Your task to perform on an android device: toggle data saver in the chrome app Image 0: 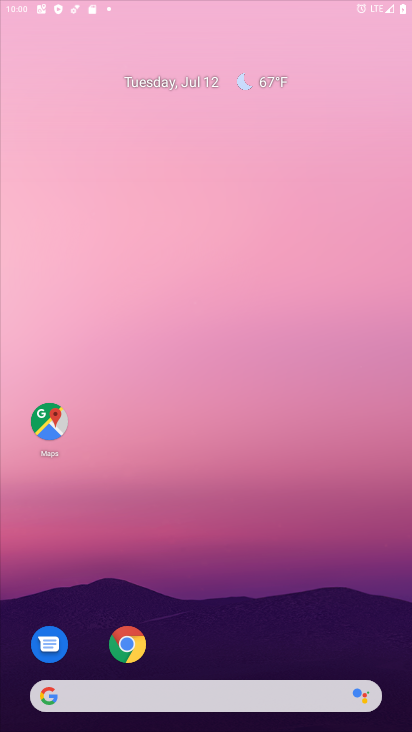
Step 0: drag from (195, 572) to (203, 220)
Your task to perform on an android device: toggle data saver in the chrome app Image 1: 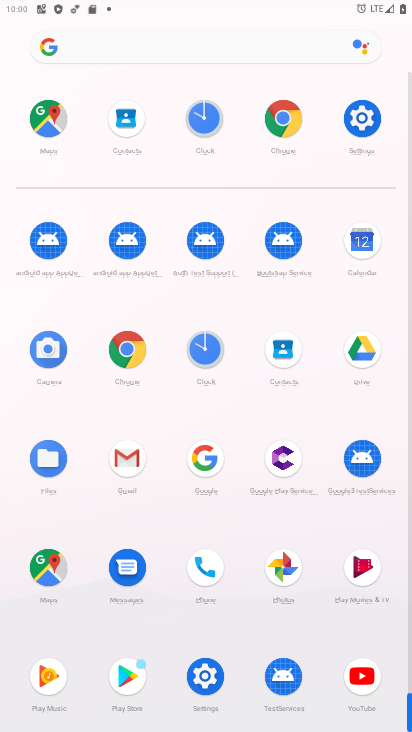
Step 1: click (130, 358)
Your task to perform on an android device: toggle data saver in the chrome app Image 2: 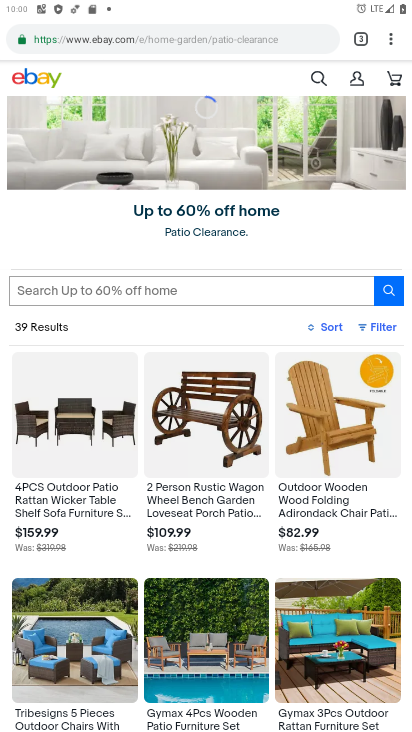
Step 2: drag from (223, 487) to (311, 304)
Your task to perform on an android device: toggle data saver in the chrome app Image 3: 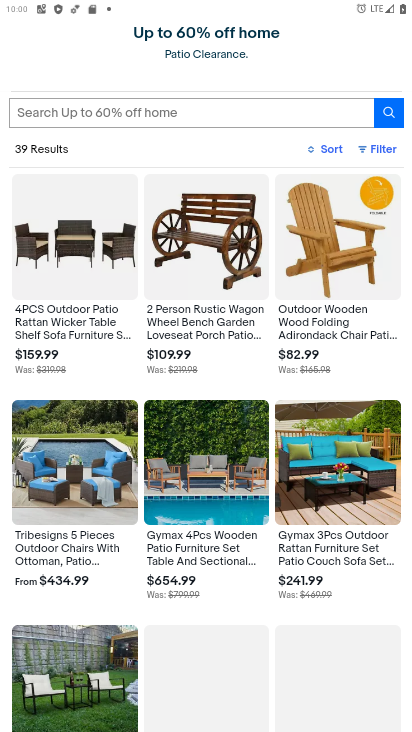
Step 3: drag from (292, 105) to (261, 646)
Your task to perform on an android device: toggle data saver in the chrome app Image 4: 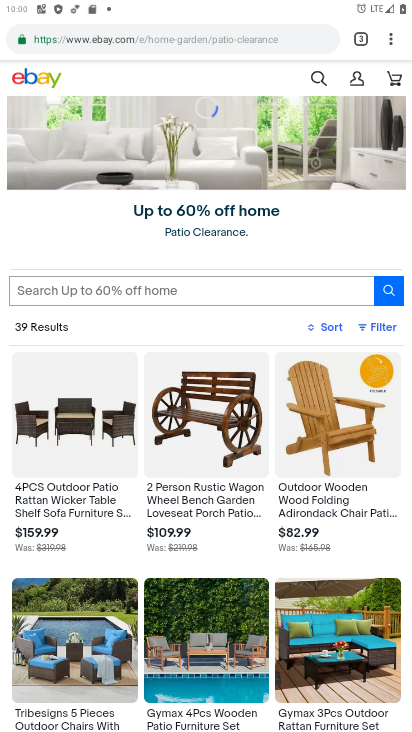
Step 4: click (393, 37)
Your task to perform on an android device: toggle data saver in the chrome app Image 5: 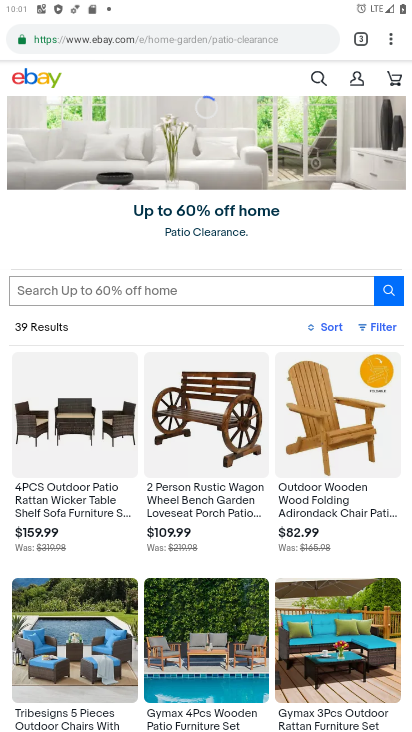
Step 5: drag from (388, 43) to (283, 510)
Your task to perform on an android device: toggle data saver in the chrome app Image 6: 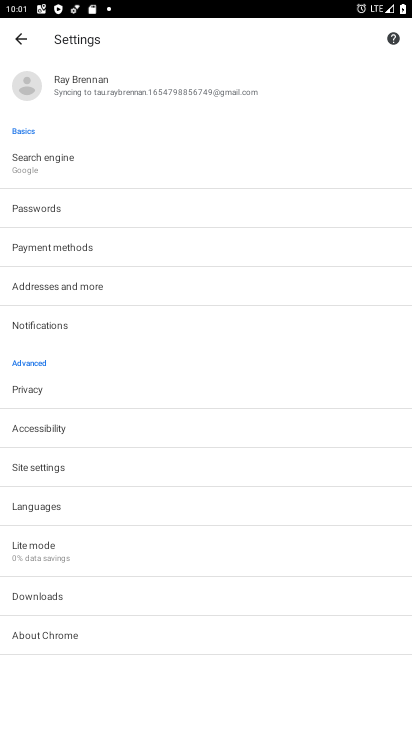
Step 6: click (74, 562)
Your task to perform on an android device: toggle data saver in the chrome app Image 7: 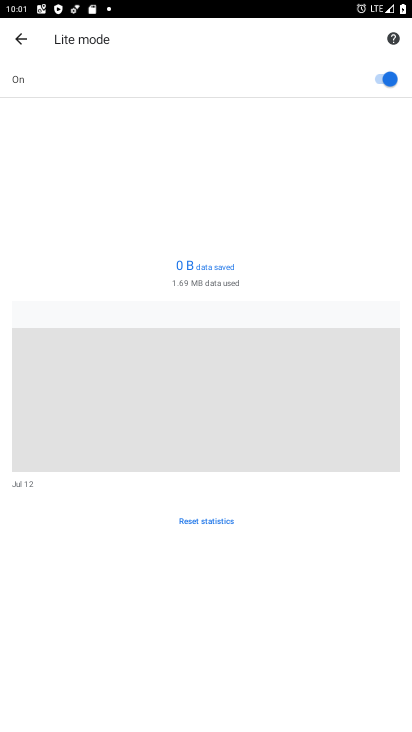
Step 7: task complete